Your task to perform on an android device: Search for razer kraken on walmart, select the first entry, add it to the cart, then select checkout. Image 0: 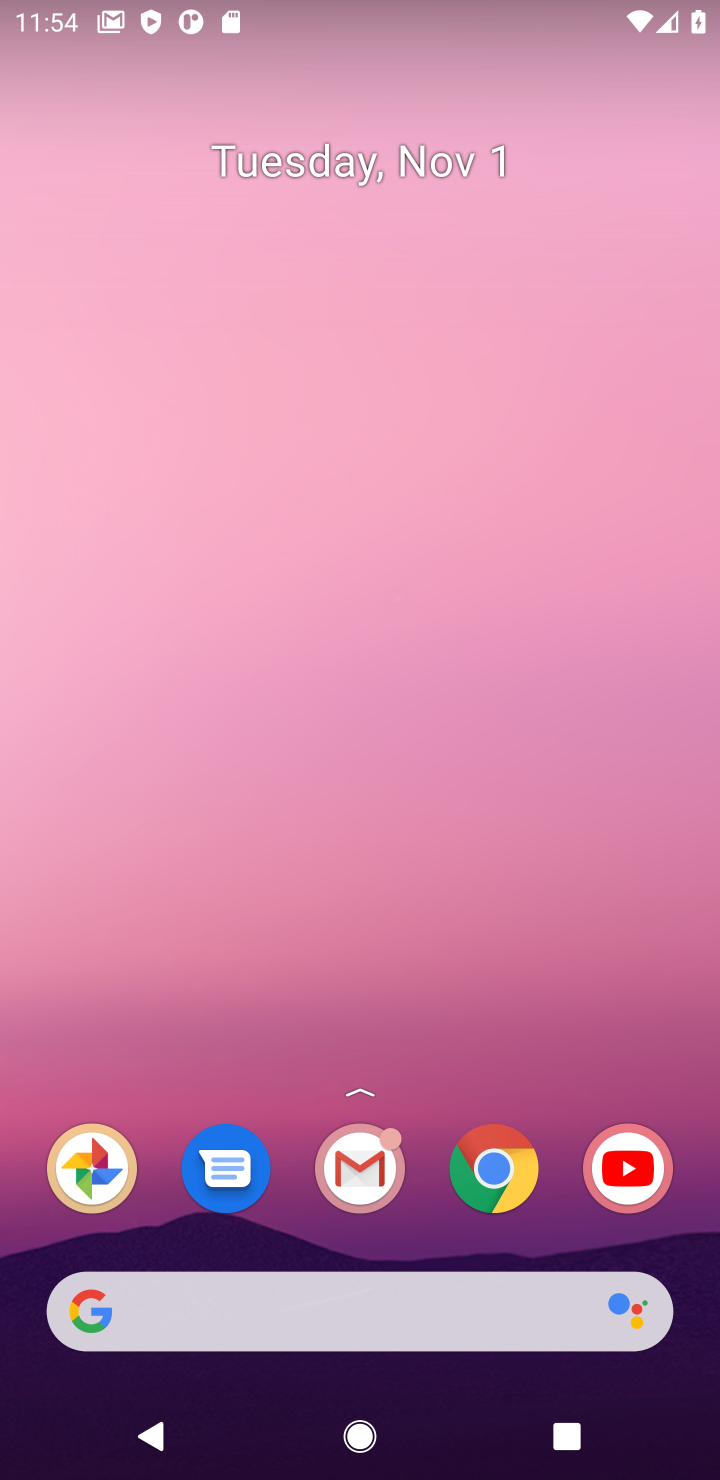
Step 0: click (467, 1157)
Your task to perform on an android device: Search for razer kraken on walmart, select the first entry, add it to the cart, then select checkout. Image 1: 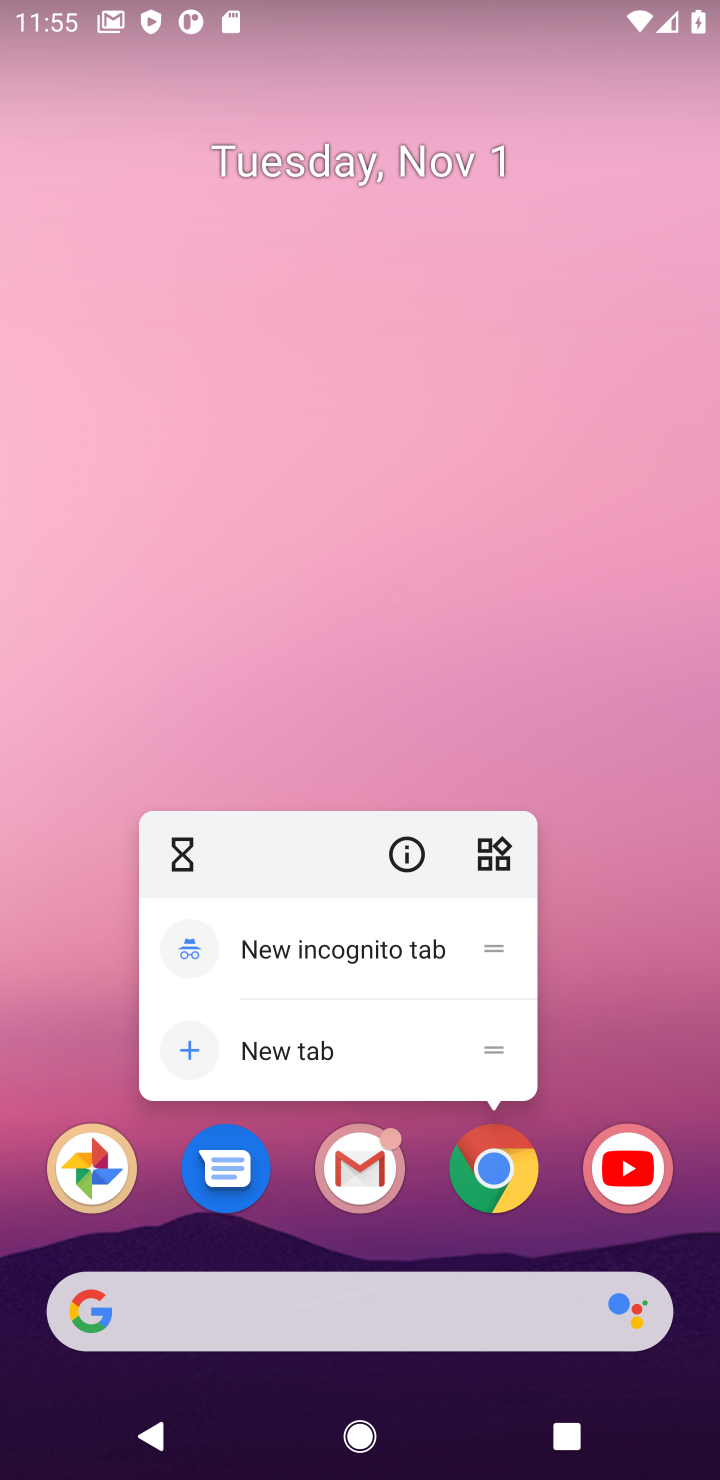
Step 1: click (481, 1163)
Your task to perform on an android device: Search for razer kraken on walmart, select the first entry, add it to the cart, then select checkout. Image 2: 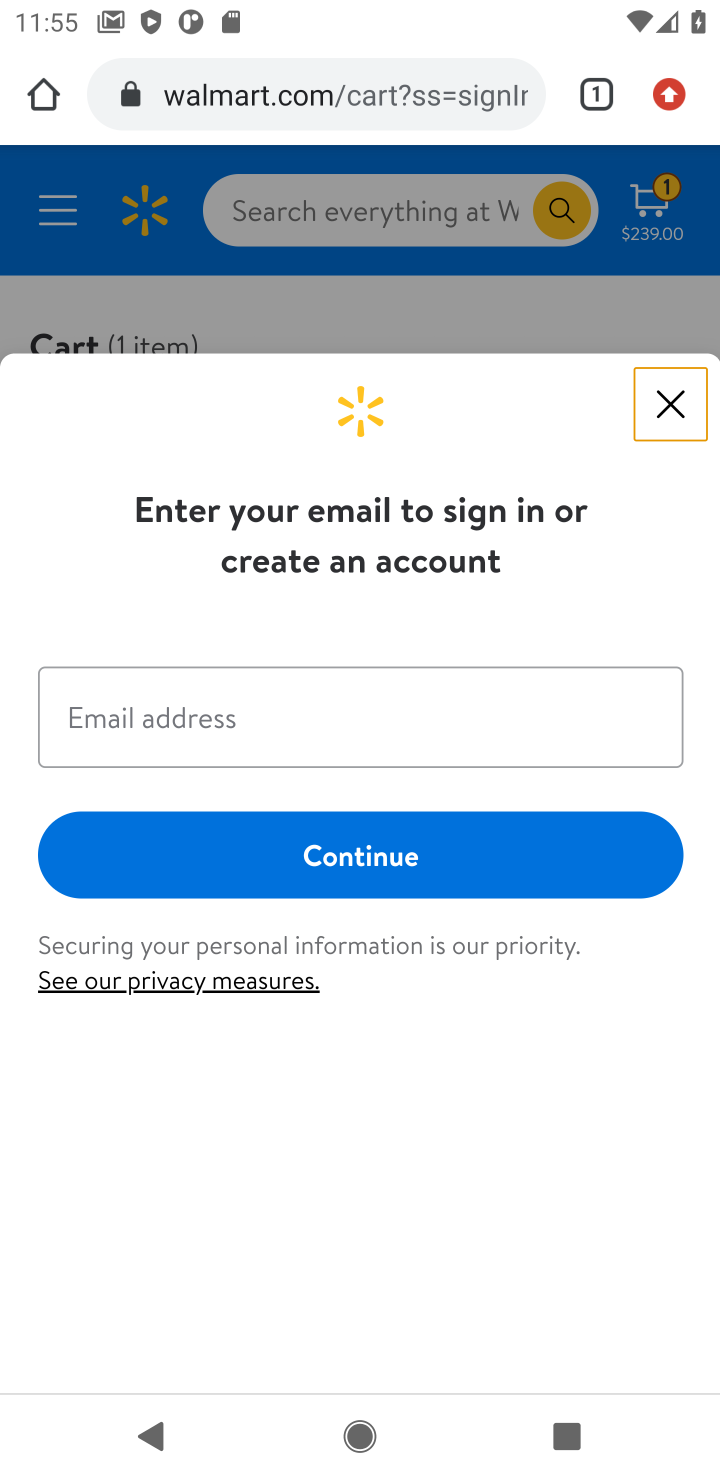
Step 2: click (409, 87)
Your task to perform on an android device: Search for razer kraken on walmart, select the first entry, add it to the cart, then select checkout. Image 3: 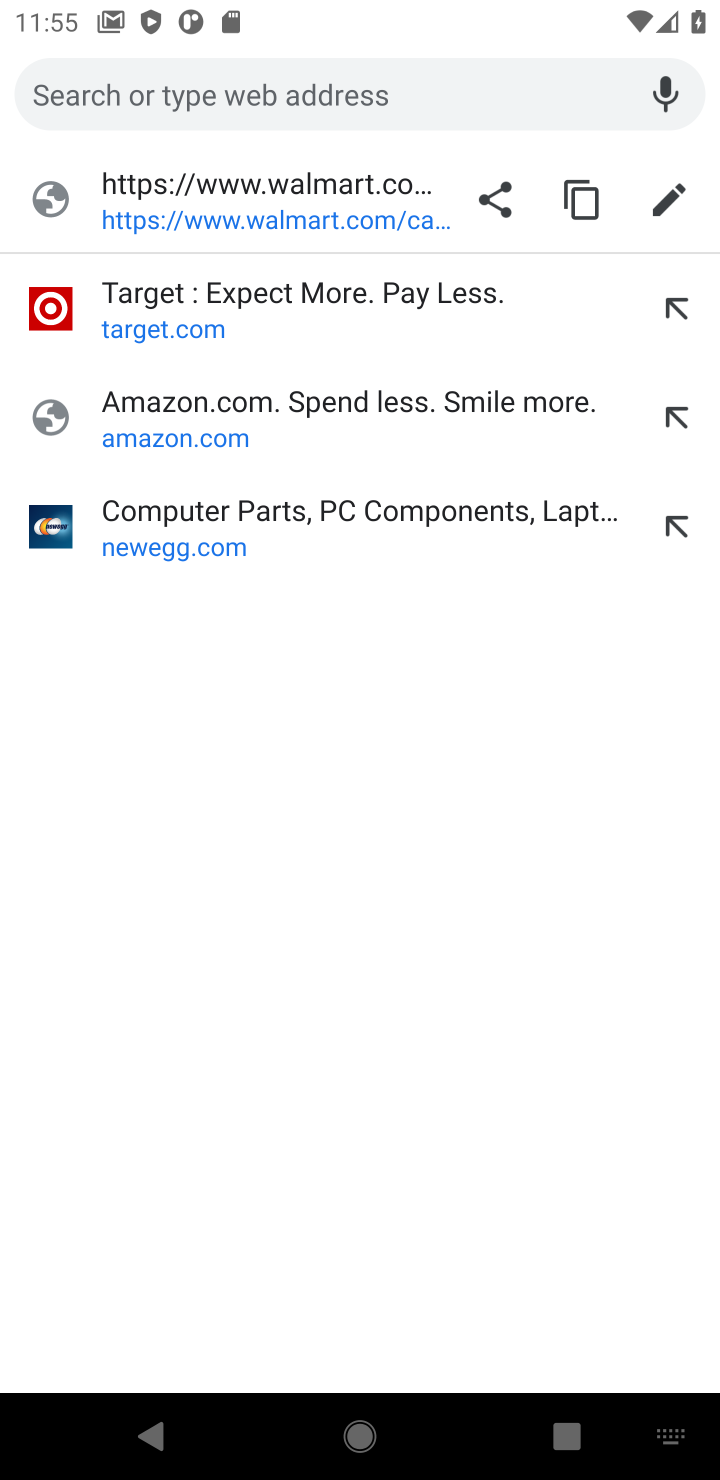
Step 3: press enter
Your task to perform on an android device: Search for razer kraken on walmart, select the first entry, add it to the cart, then select checkout. Image 4: 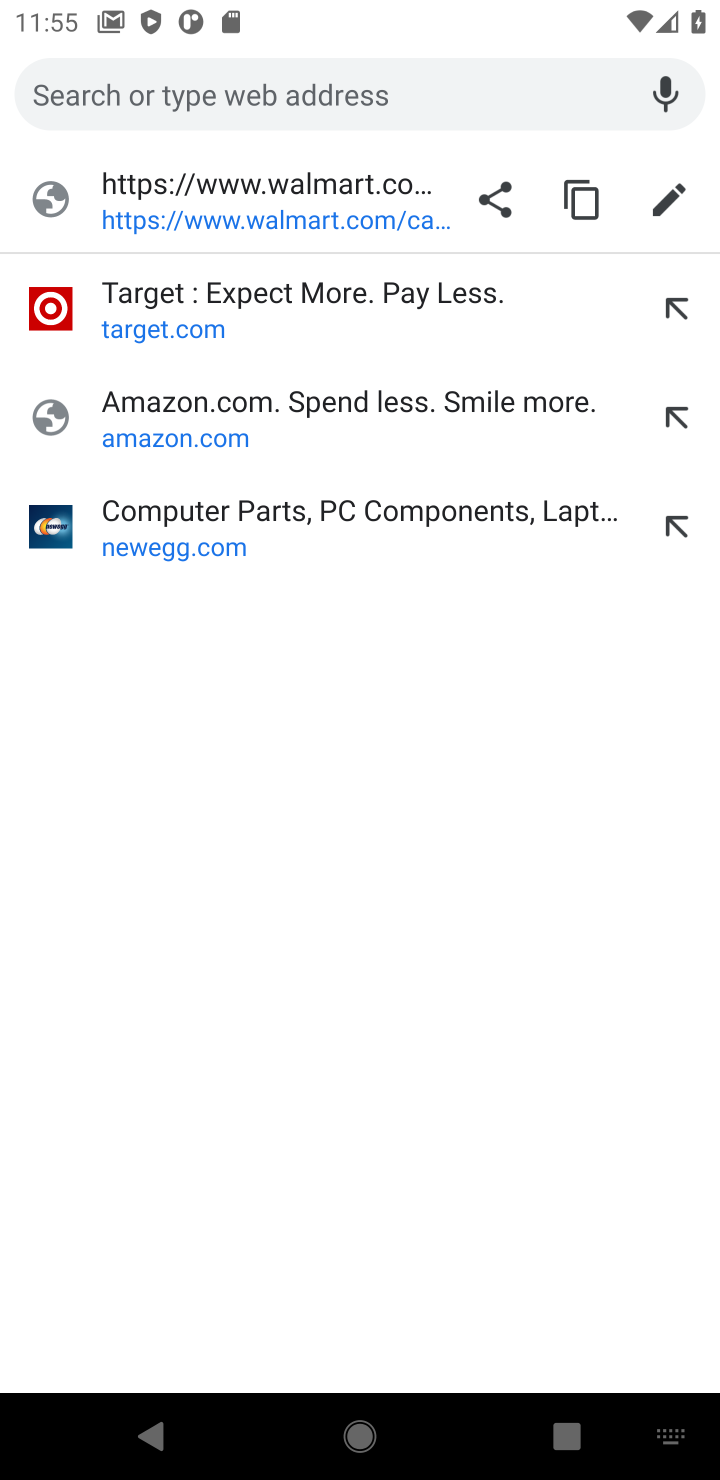
Step 4: type "walmart"
Your task to perform on an android device: Search for razer kraken on walmart, select the first entry, add it to the cart, then select checkout. Image 5: 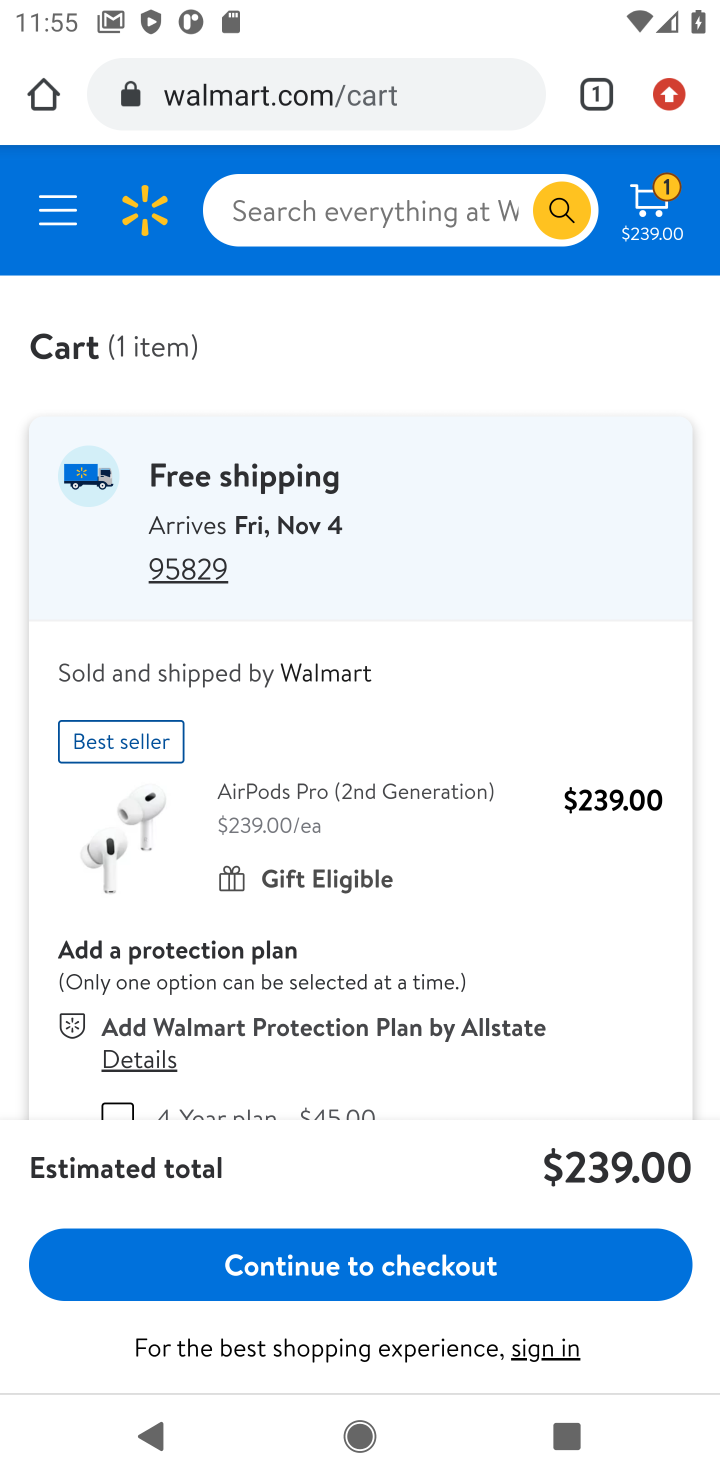
Step 5: click (391, 197)
Your task to perform on an android device: Search for razer kraken on walmart, select the first entry, add it to the cart, then select checkout. Image 6: 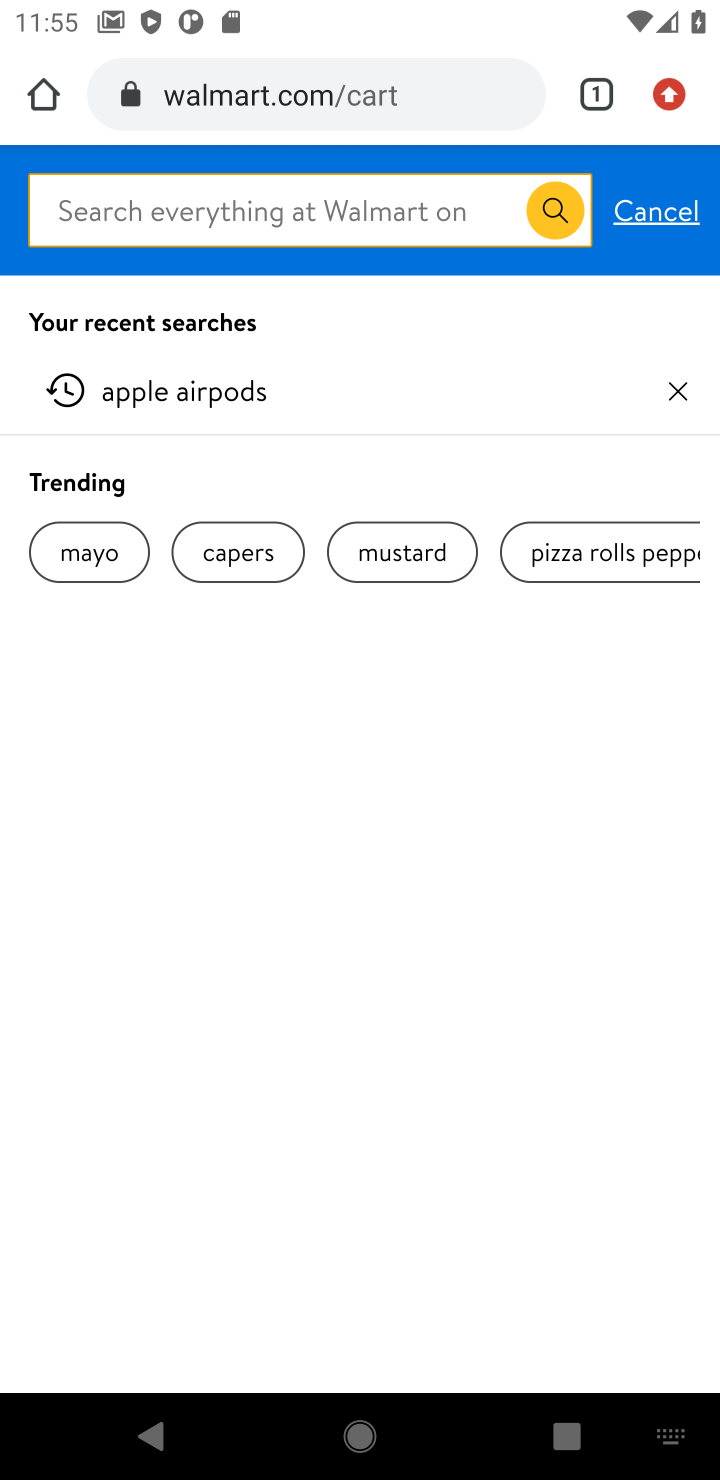
Step 6: type "razer kraken"
Your task to perform on an android device: Search for razer kraken on walmart, select the first entry, add it to the cart, then select checkout. Image 7: 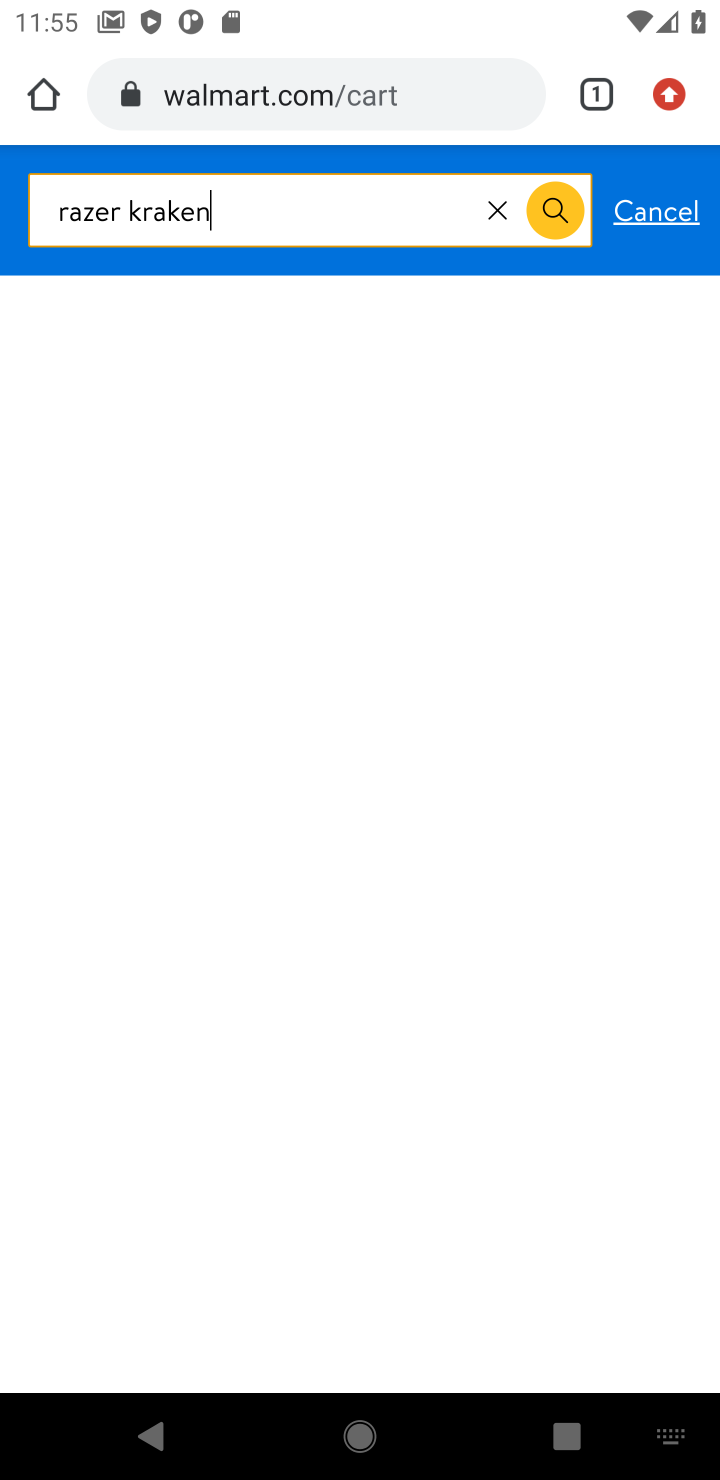
Step 7: press enter
Your task to perform on an android device: Search for razer kraken on walmart, select the first entry, add it to the cart, then select checkout. Image 8: 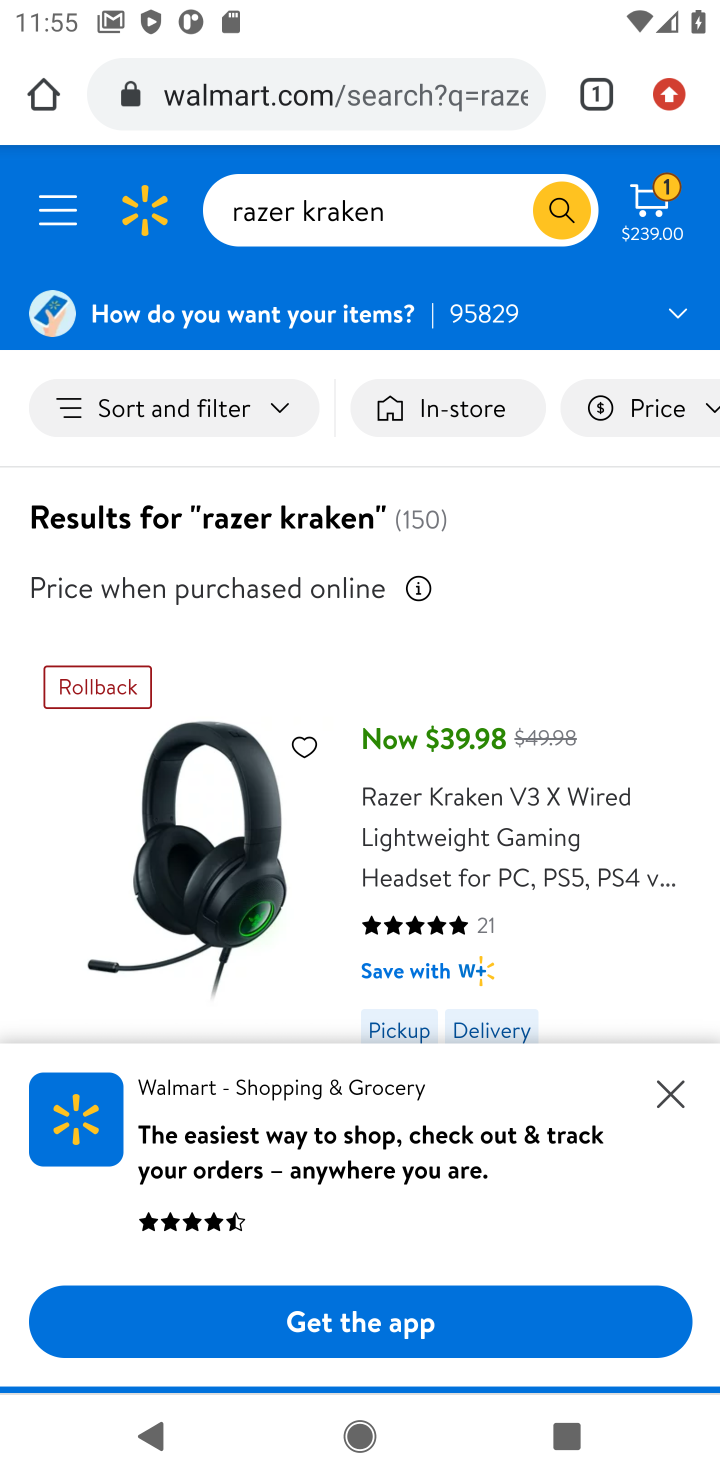
Step 8: click (230, 854)
Your task to perform on an android device: Search for razer kraken on walmart, select the first entry, add it to the cart, then select checkout. Image 9: 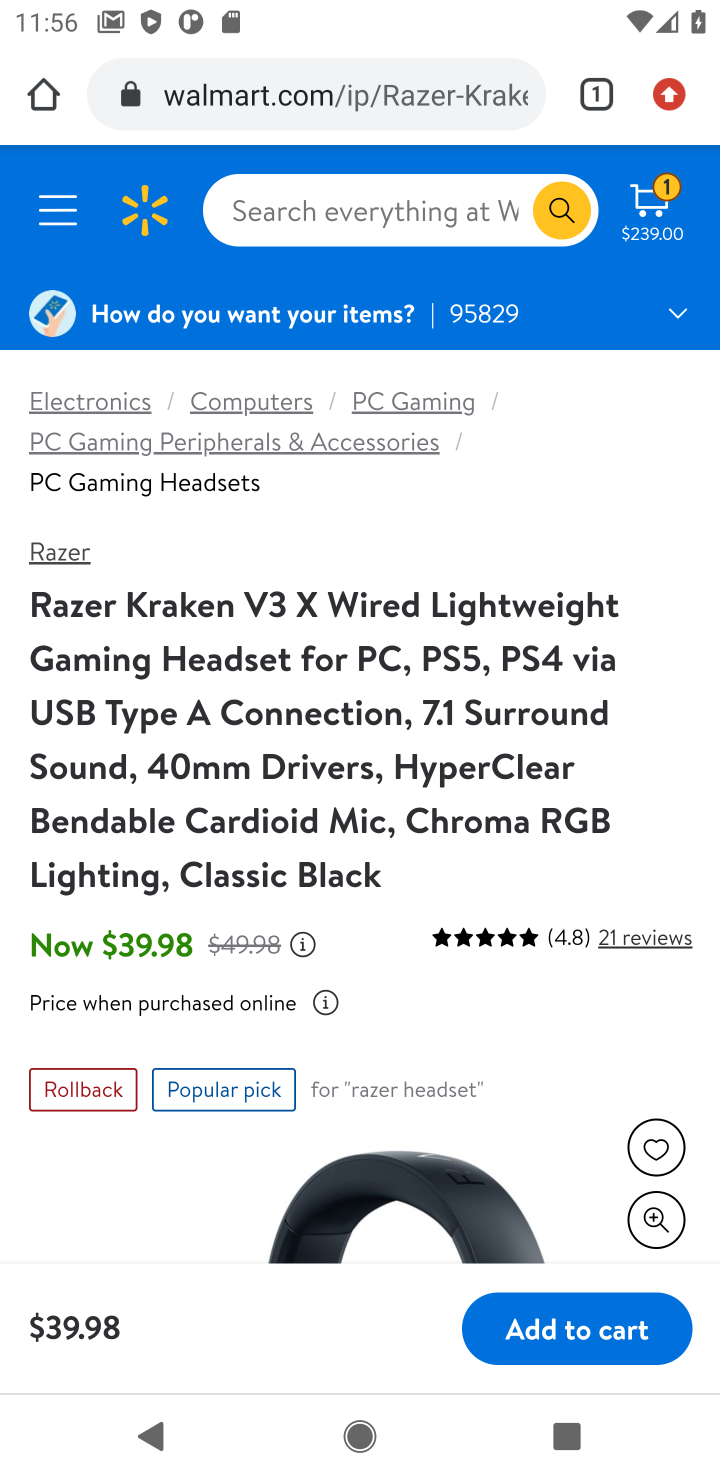
Step 9: drag from (400, 868) to (332, 460)
Your task to perform on an android device: Search for razer kraken on walmart, select the first entry, add it to the cart, then select checkout. Image 10: 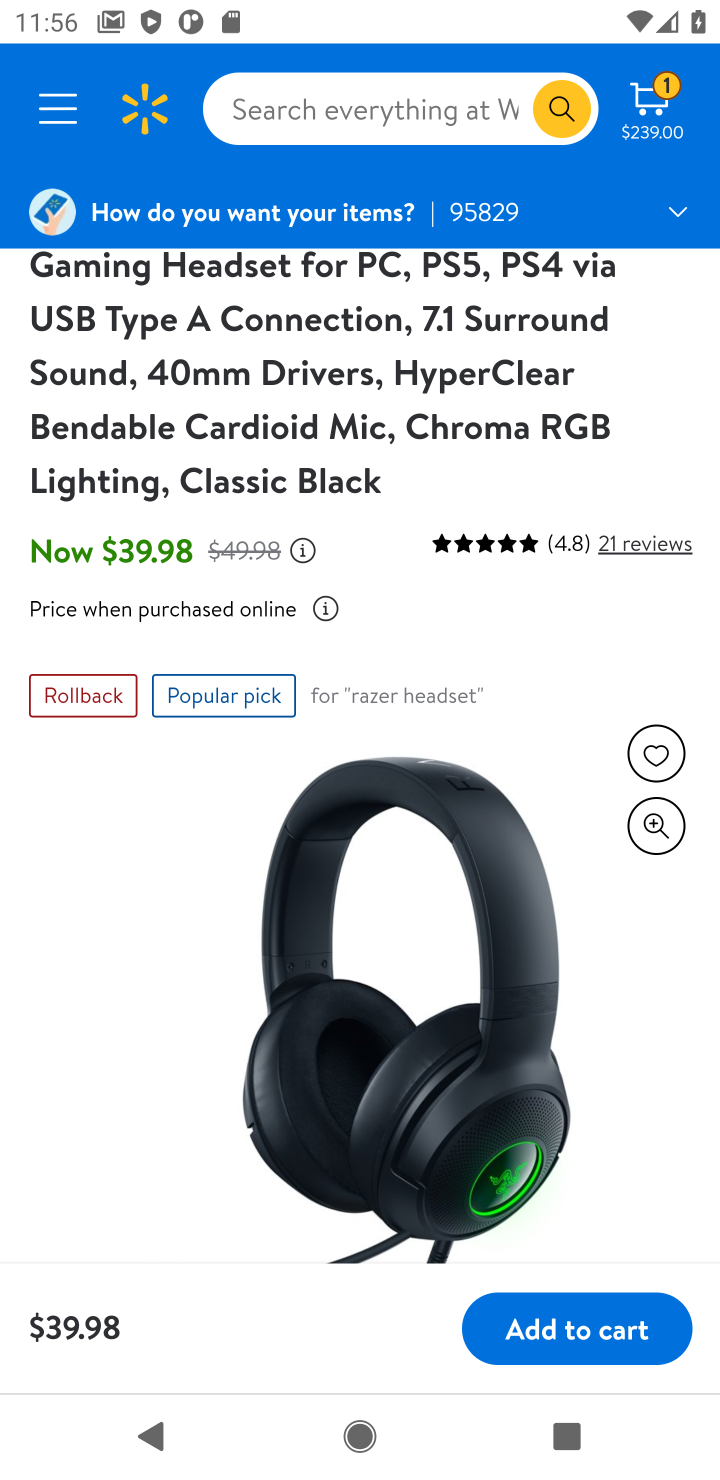
Step 10: click (606, 1326)
Your task to perform on an android device: Search for razer kraken on walmart, select the first entry, add it to the cart, then select checkout. Image 11: 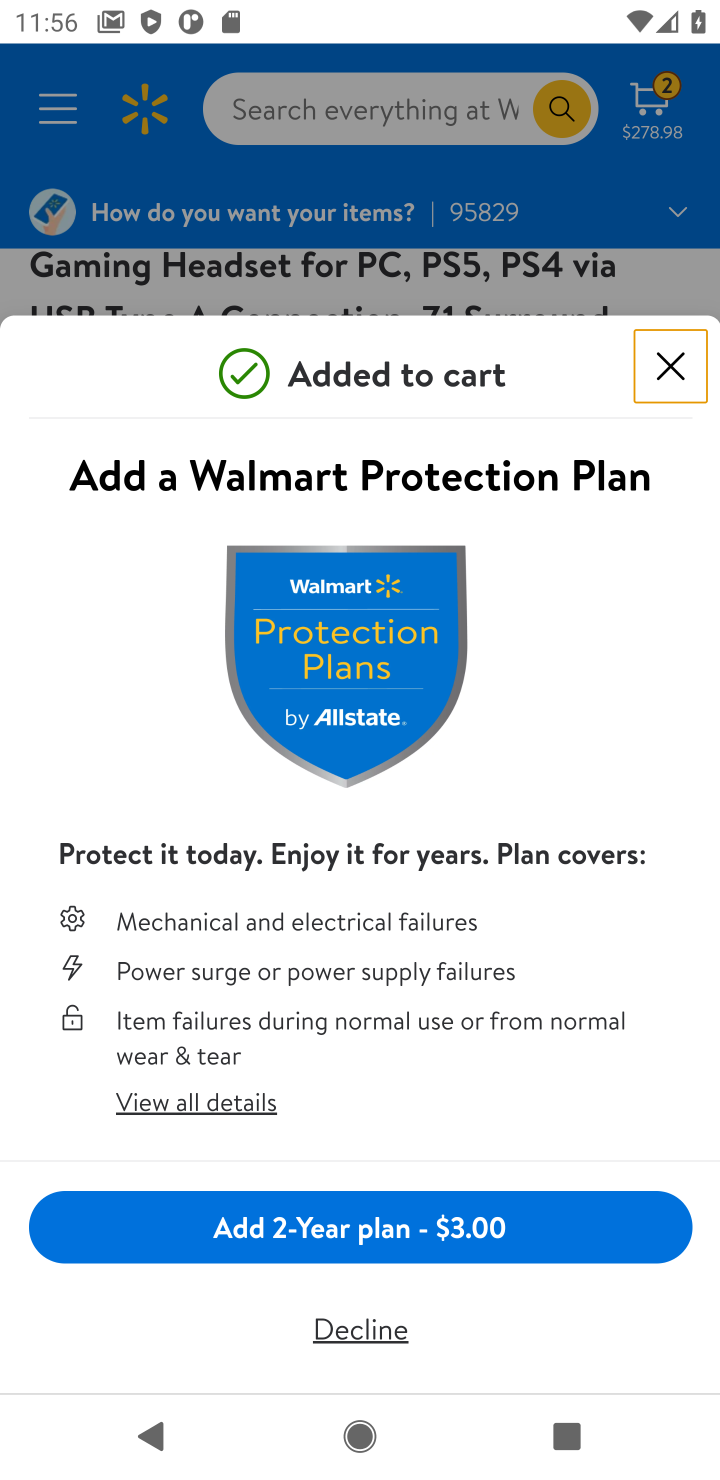
Step 11: click (670, 376)
Your task to perform on an android device: Search for razer kraken on walmart, select the first entry, add it to the cart, then select checkout. Image 12: 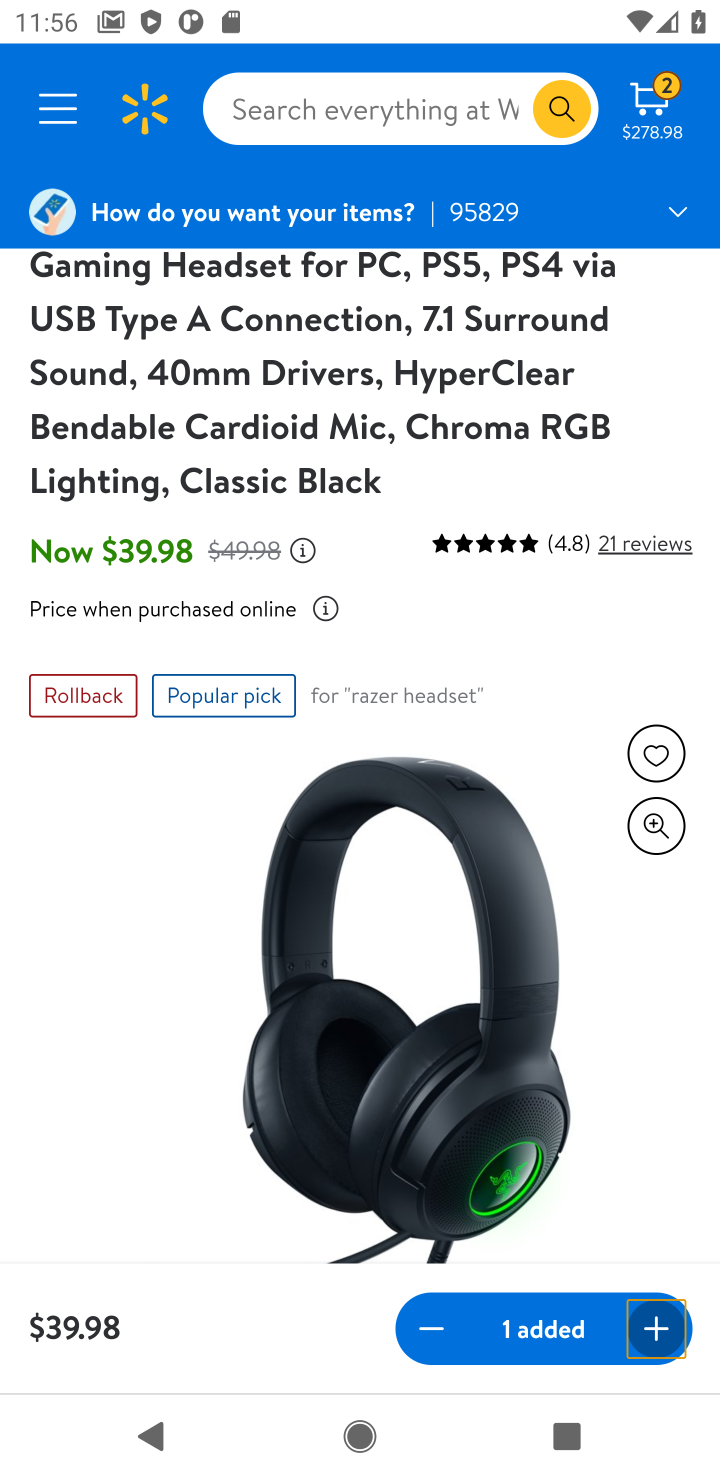
Step 12: click (645, 129)
Your task to perform on an android device: Search for razer kraken on walmart, select the first entry, add it to the cart, then select checkout. Image 13: 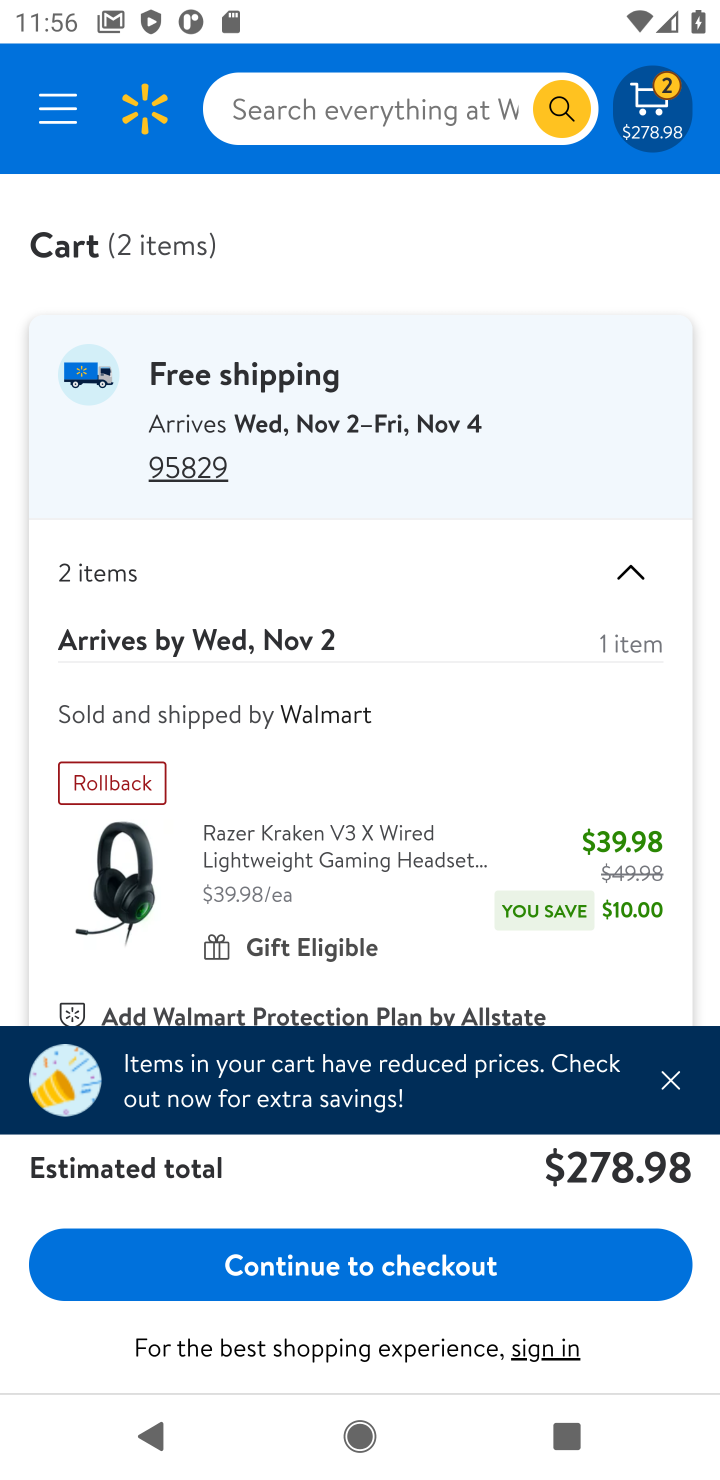
Step 13: click (451, 1273)
Your task to perform on an android device: Search for razer kraken on walmart, select the first entry, add it to the cart, then select checkout. Image 14: 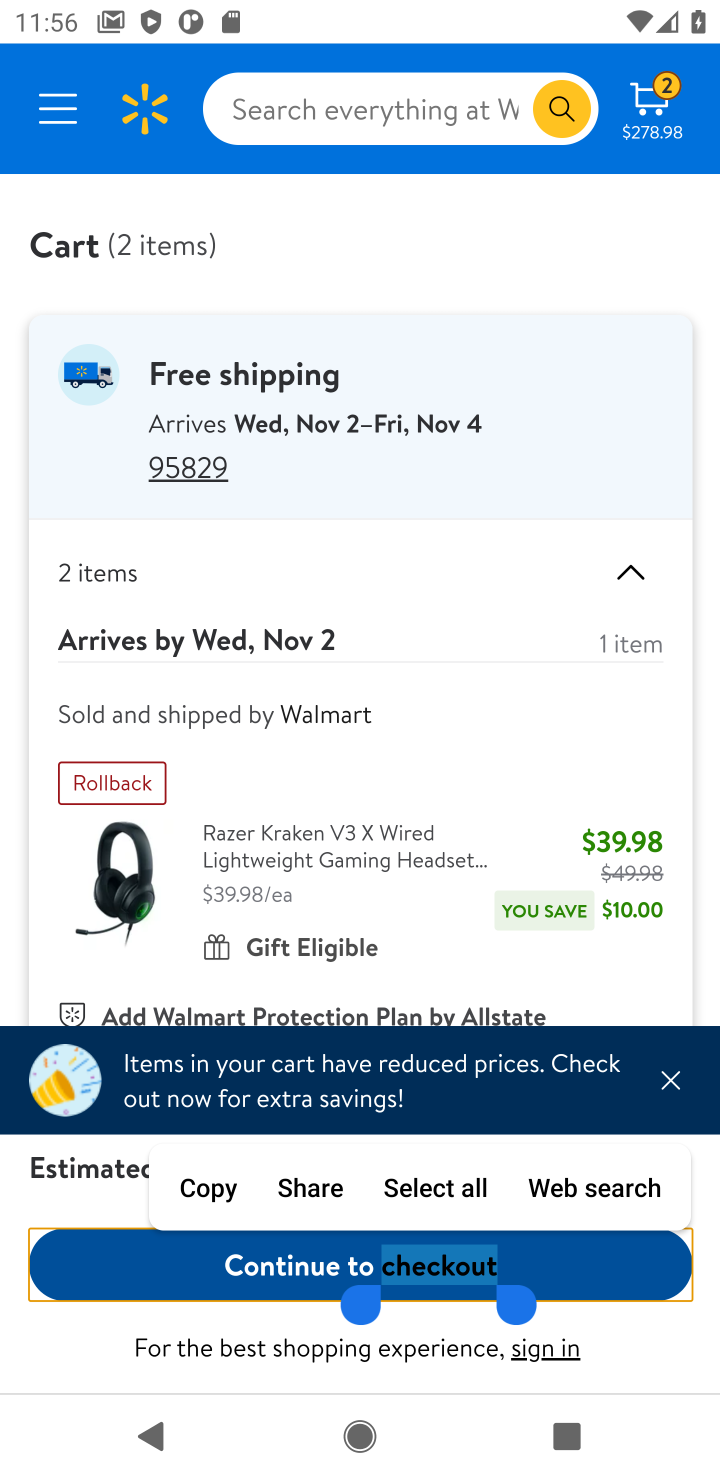
Step 14: click (676, 1093)
Your task to perform on an android device: Search for razer kraken on walmart, select the first entry, add it to the cart, then select checkout. Image 15: 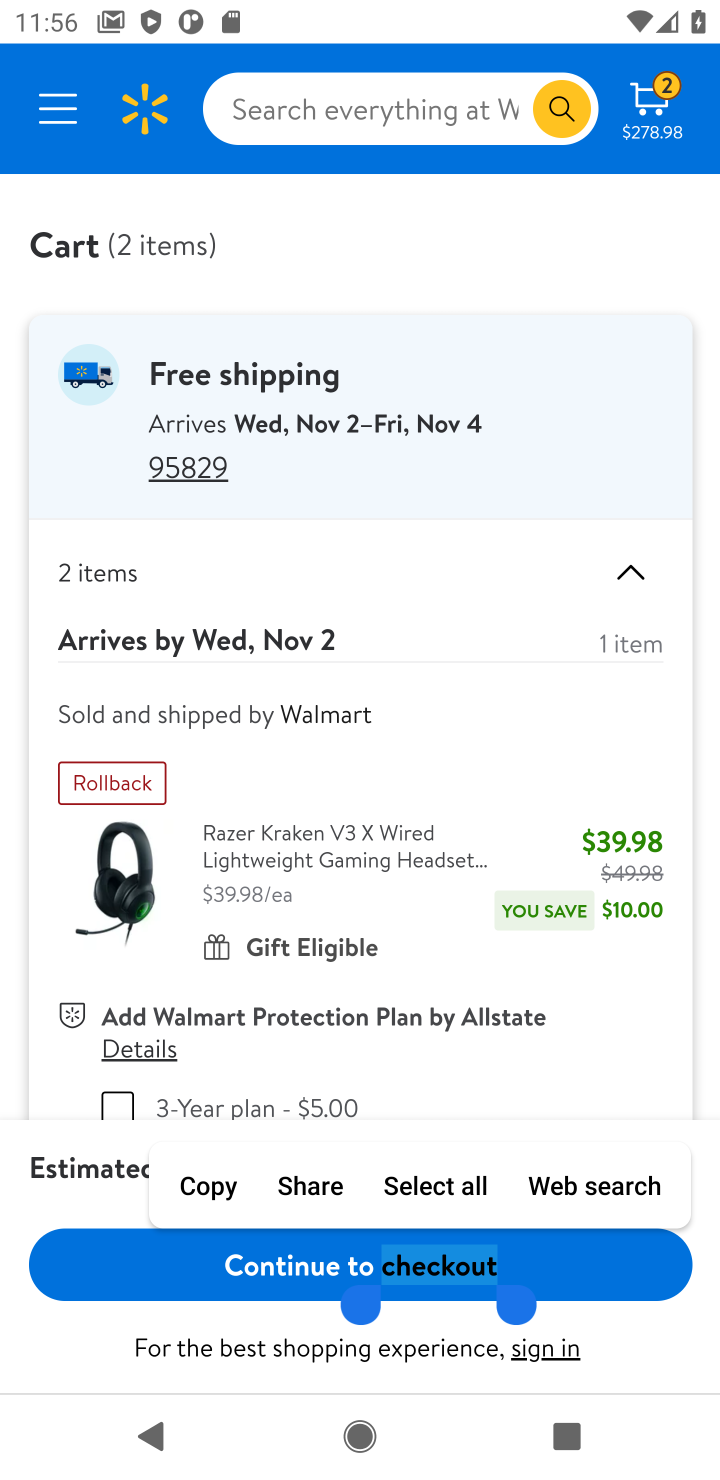
Step 15: click (306, 1261)
Your task to perform on an android device: Search for razer kraken on walmart, select the first entry, add it to the cart, then select checkout. Image 16: 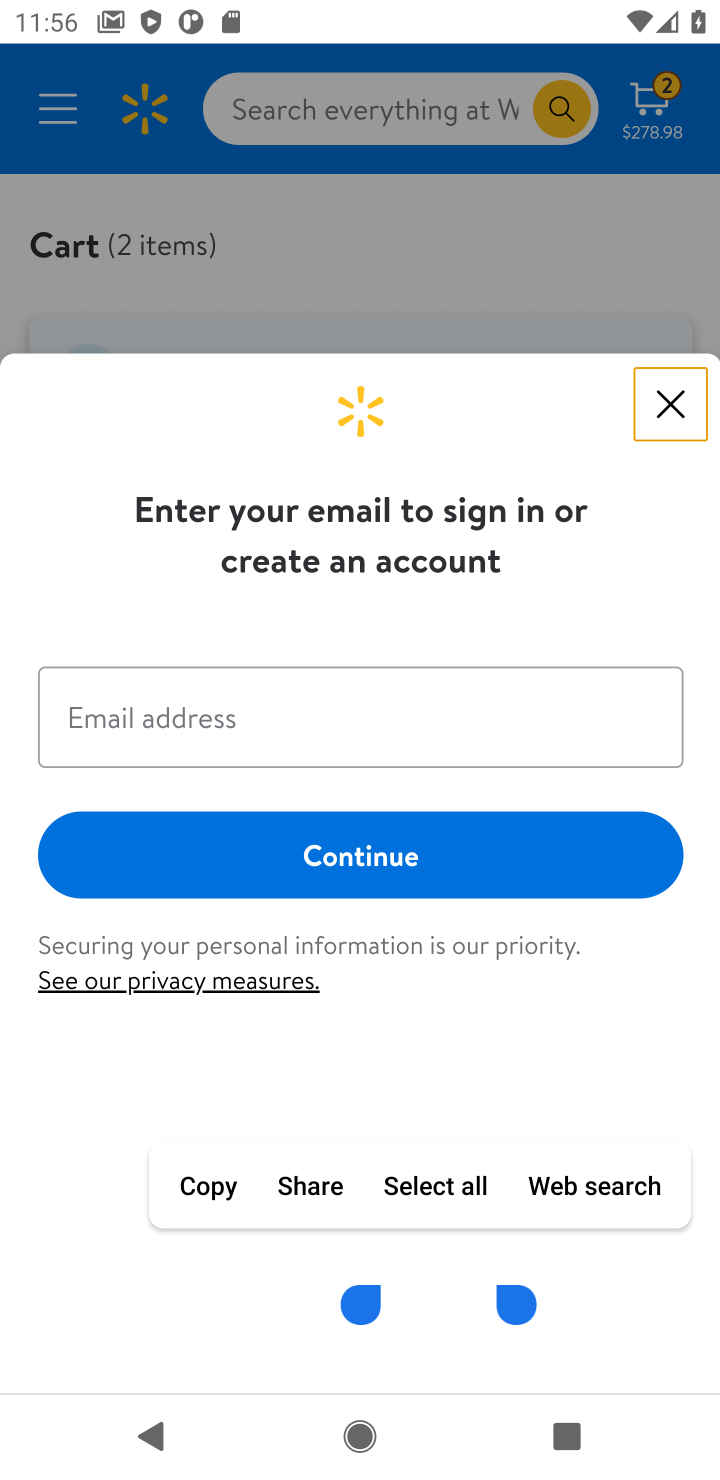
Step 16: task complete